Your task to perform on an android device: open app "Adobe Acrobat Reader" (install if not already installed) Image 0: 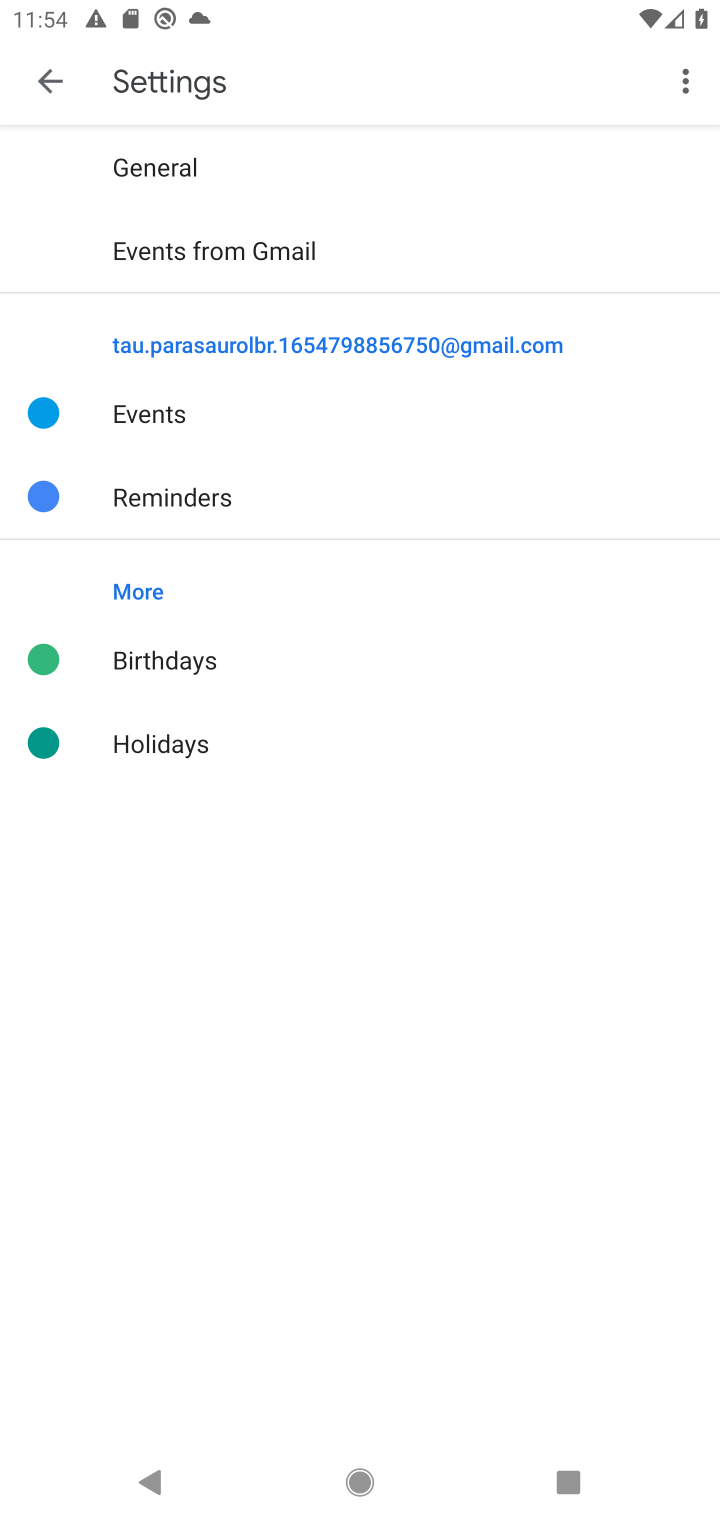
Step 0: press home button
Your task to perform on an android device: open app "Adobe Acrobat Reader" (install if not already installed) Image 1: 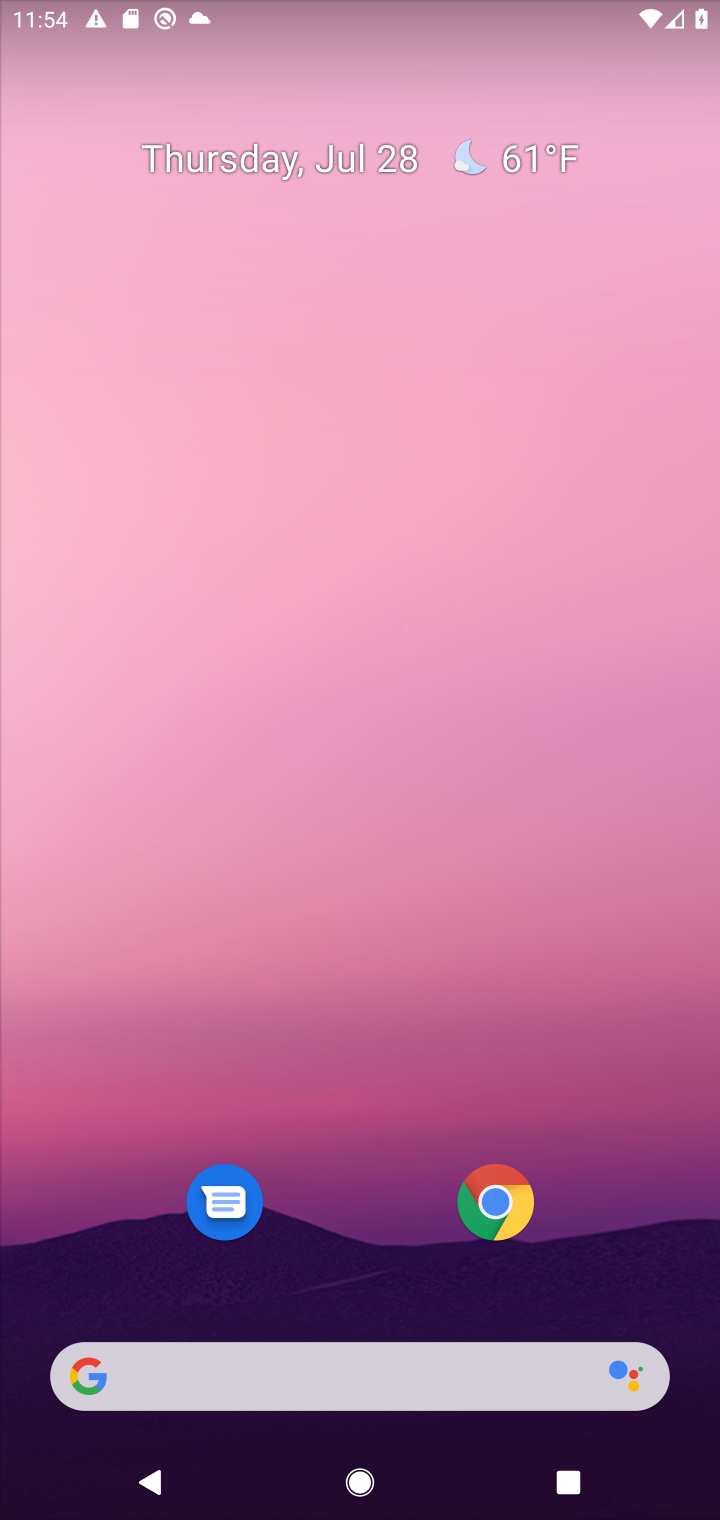
Step 1: drag from (303, 1321) to (333, 122)
Your task to perform on an android device: open app "Adobe Acrobat Reader" (install if not already installed) Image 2: 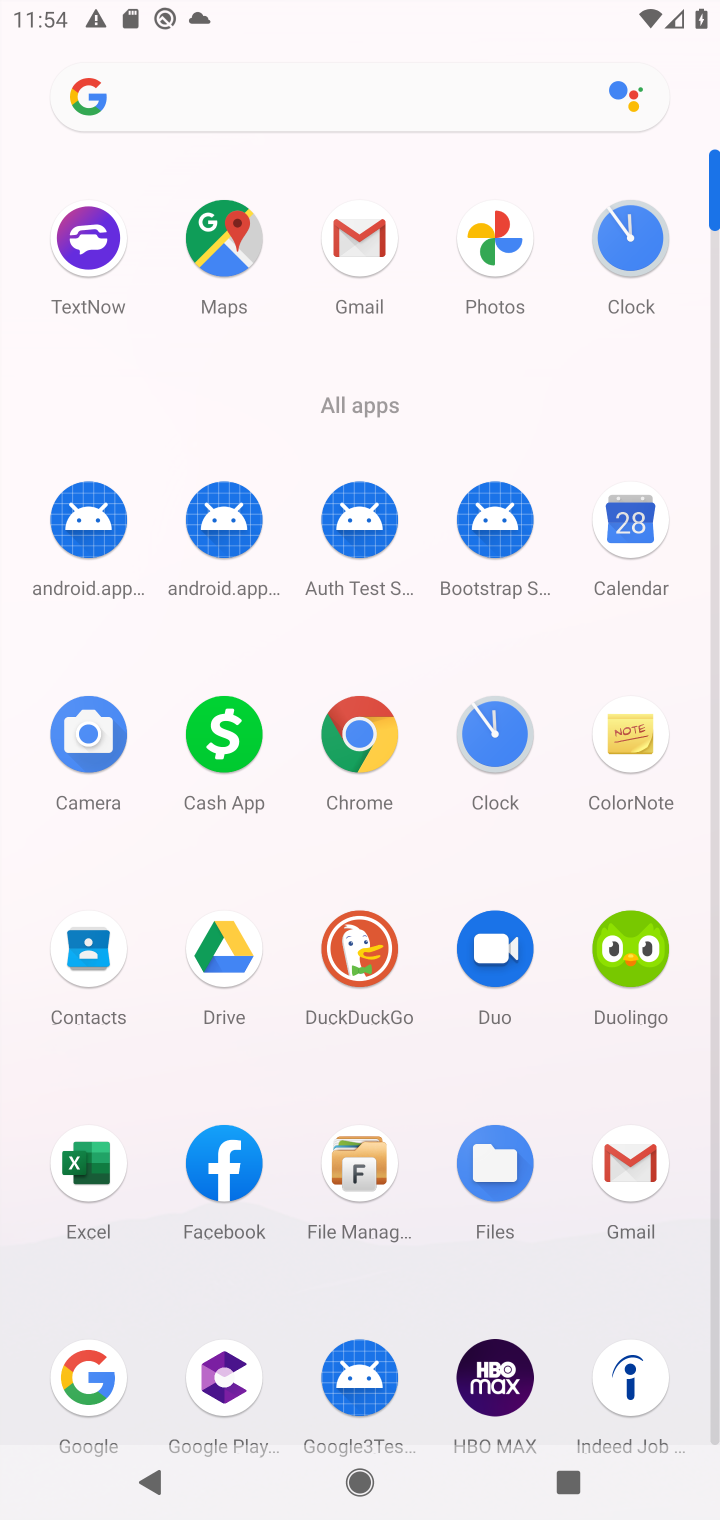
Step 2: click (714, 1434)
Your task to perform on an android device: open app "Adobe Acrobat Reader" (install if not already installed) Image 3: 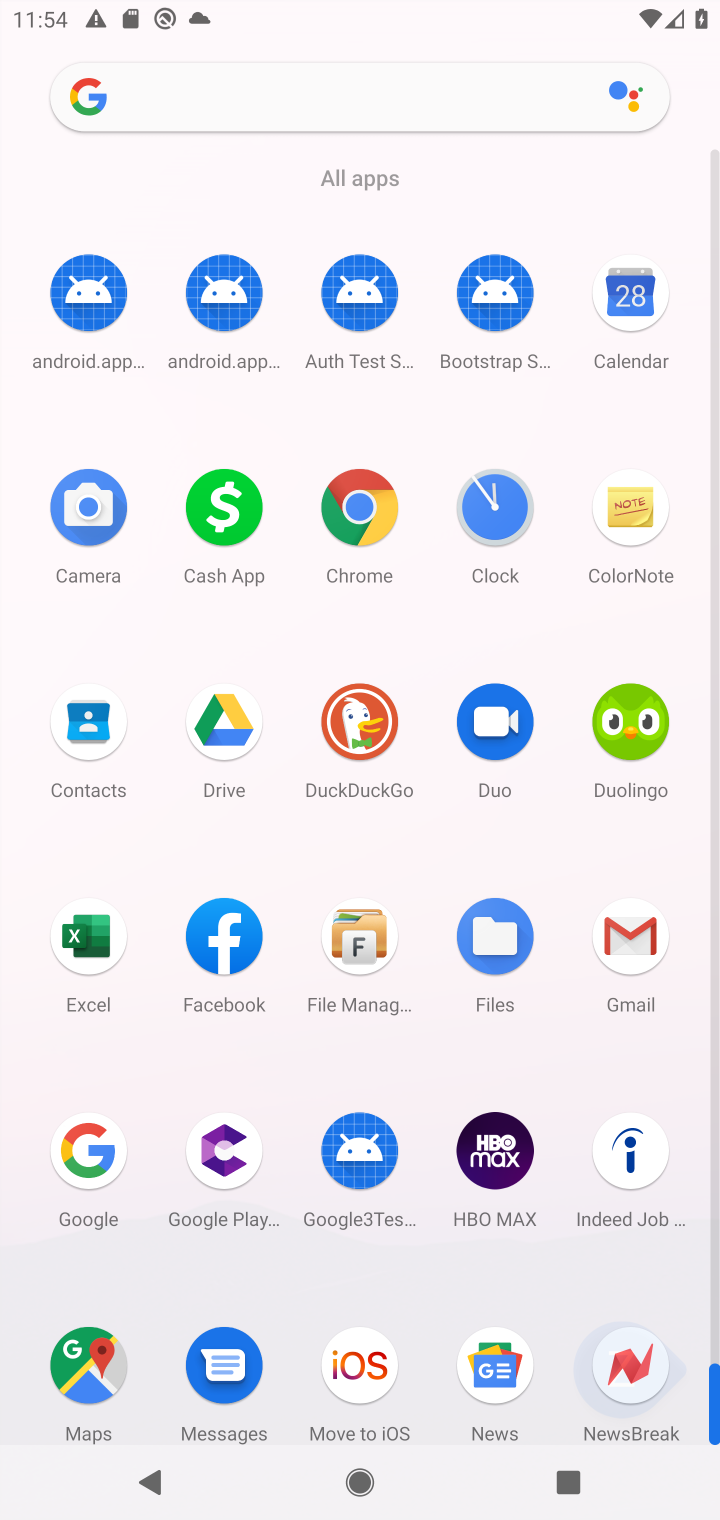
Step 3: click (714, 1434)
Your task to perform on an android device: open app "Adobe Acrobat Reader" (install if not already installed) Image 4: 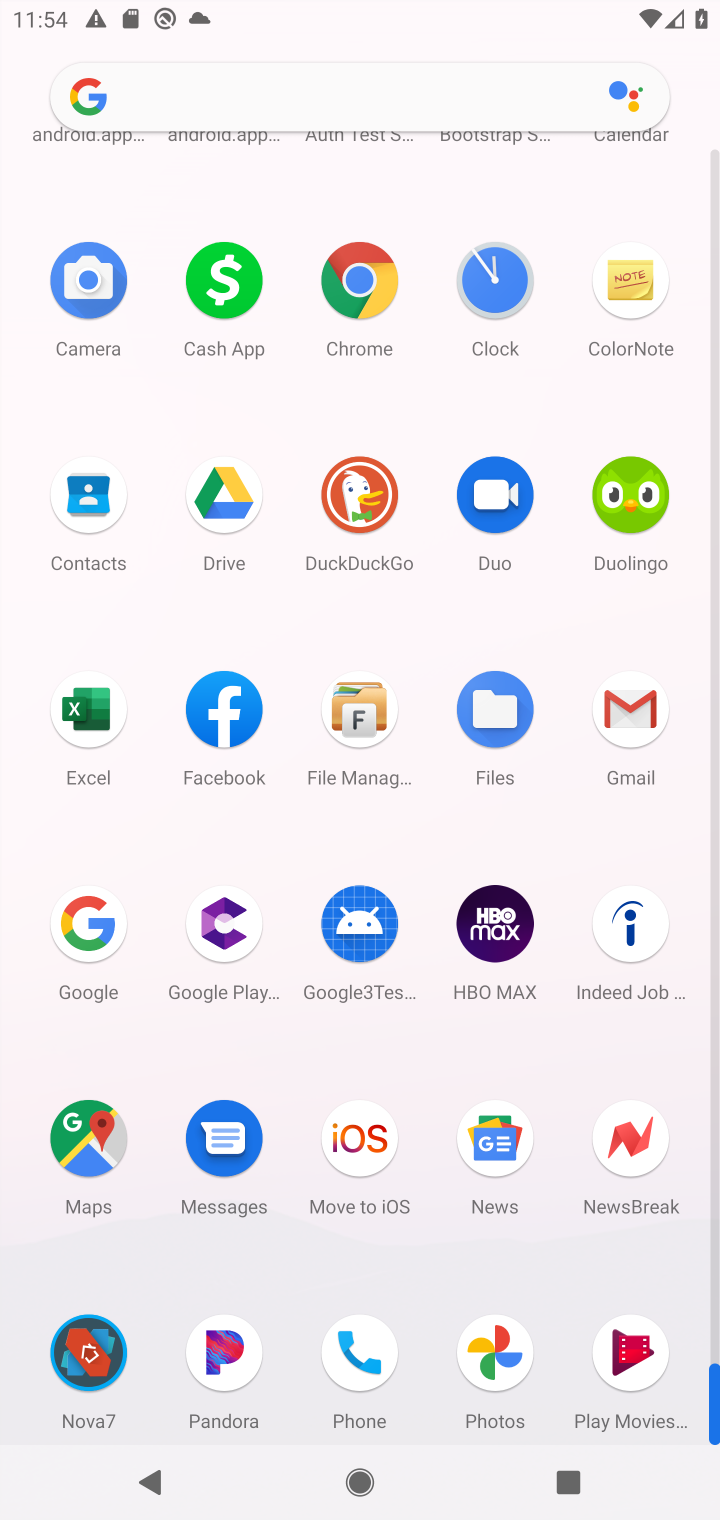
Step 4: click (232, 105)
Your task to perform on an android device: open app "Adobe Acrobat Reader" (install if not already installed) Image 5: 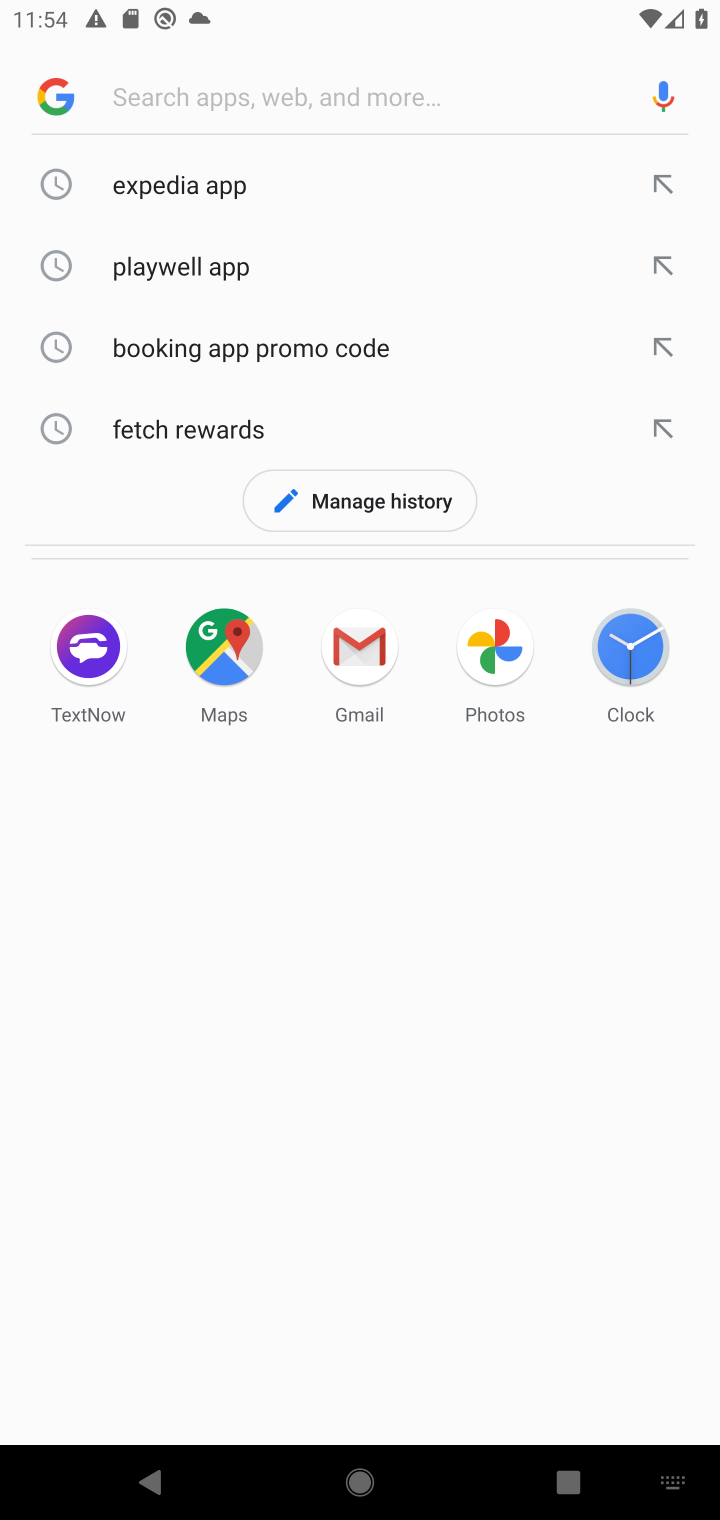
Step 5: type "adobe"
Your task to perform on an android device: open app "Adobe Acrobat Reader" (install if not already installed) Image 6: 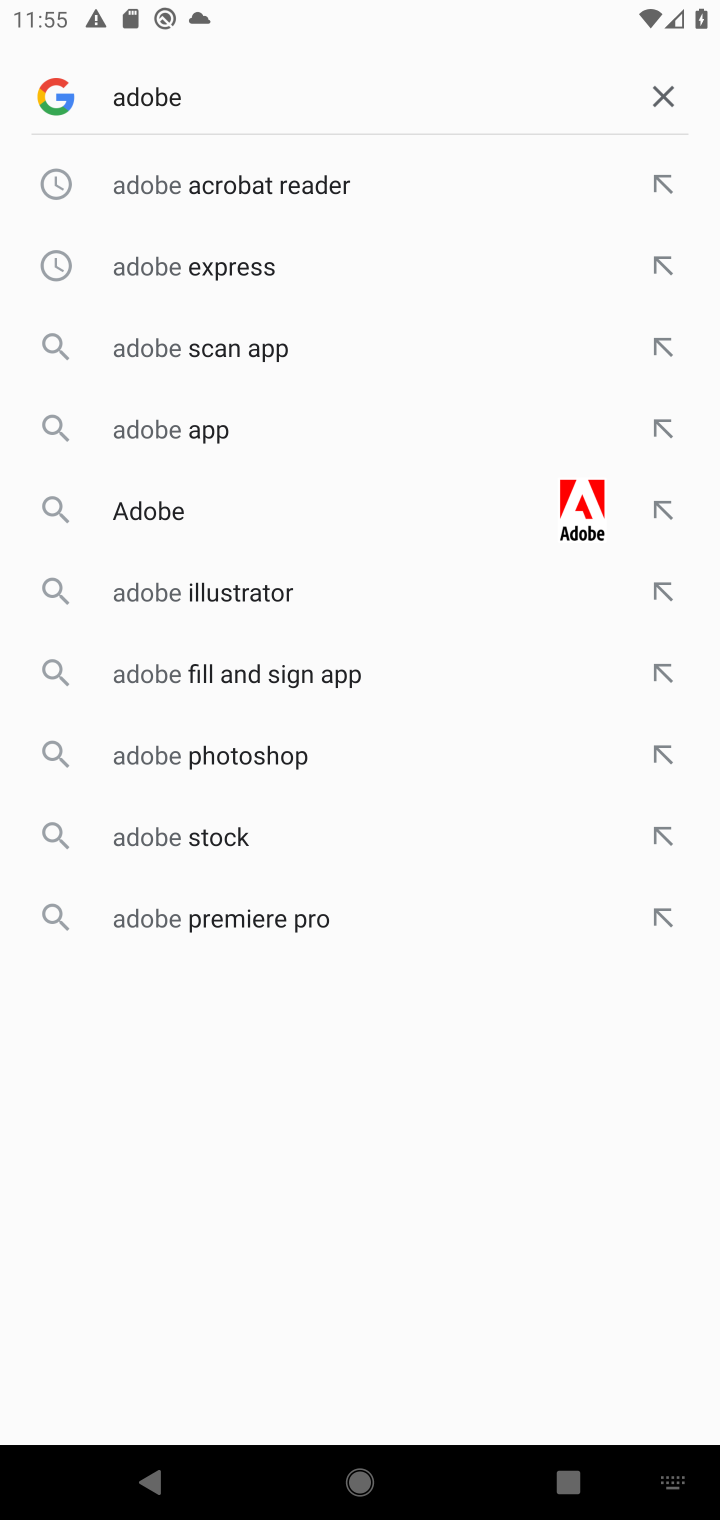
Step 6: click (314, 195)
Your task to perform on an android device: open app "Adobe Acrobat Reader" (install if not already installed) Image 7: 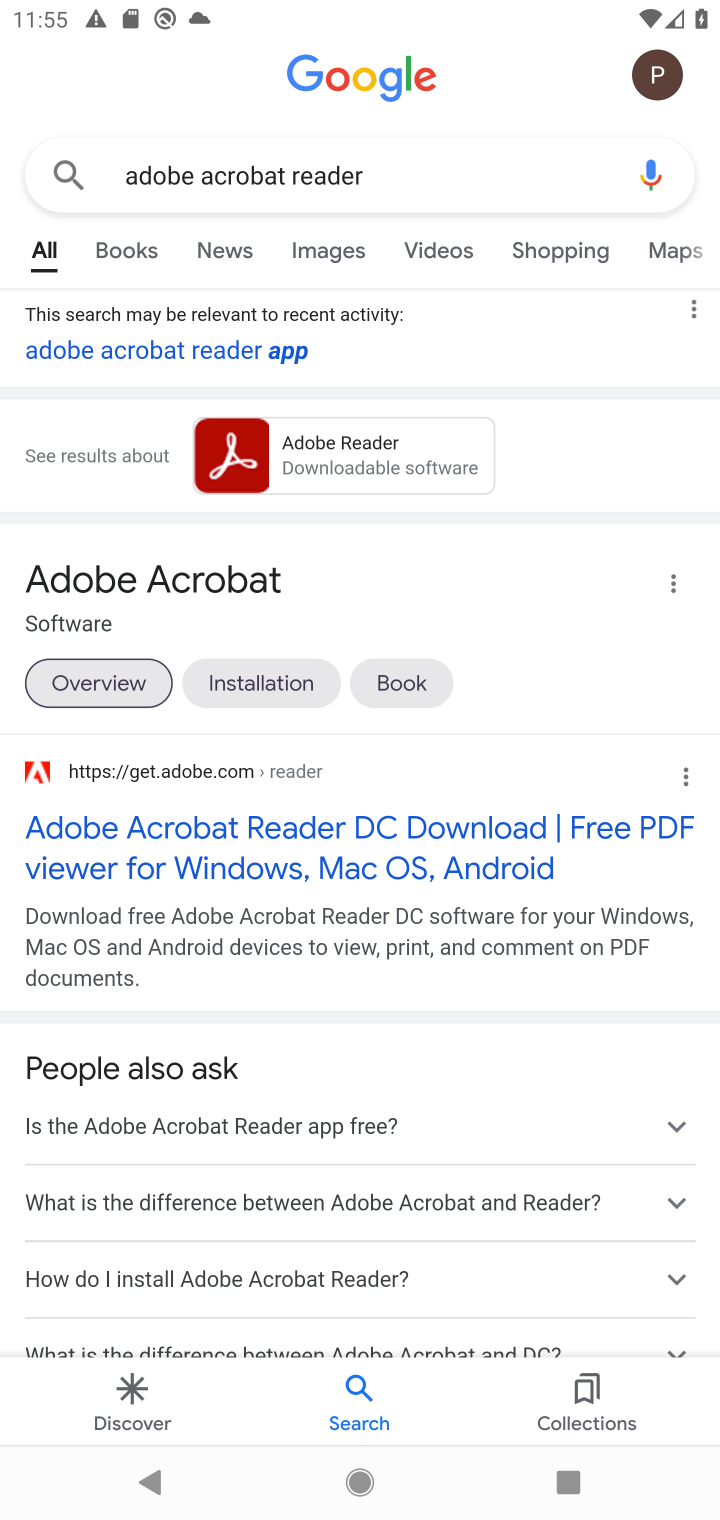
Step 7: drag from (459, 1070) to (391, 238)
Your task to perform on an android device: open app "Adobe Acrobat Reader" (install if not already installed) Image 8: 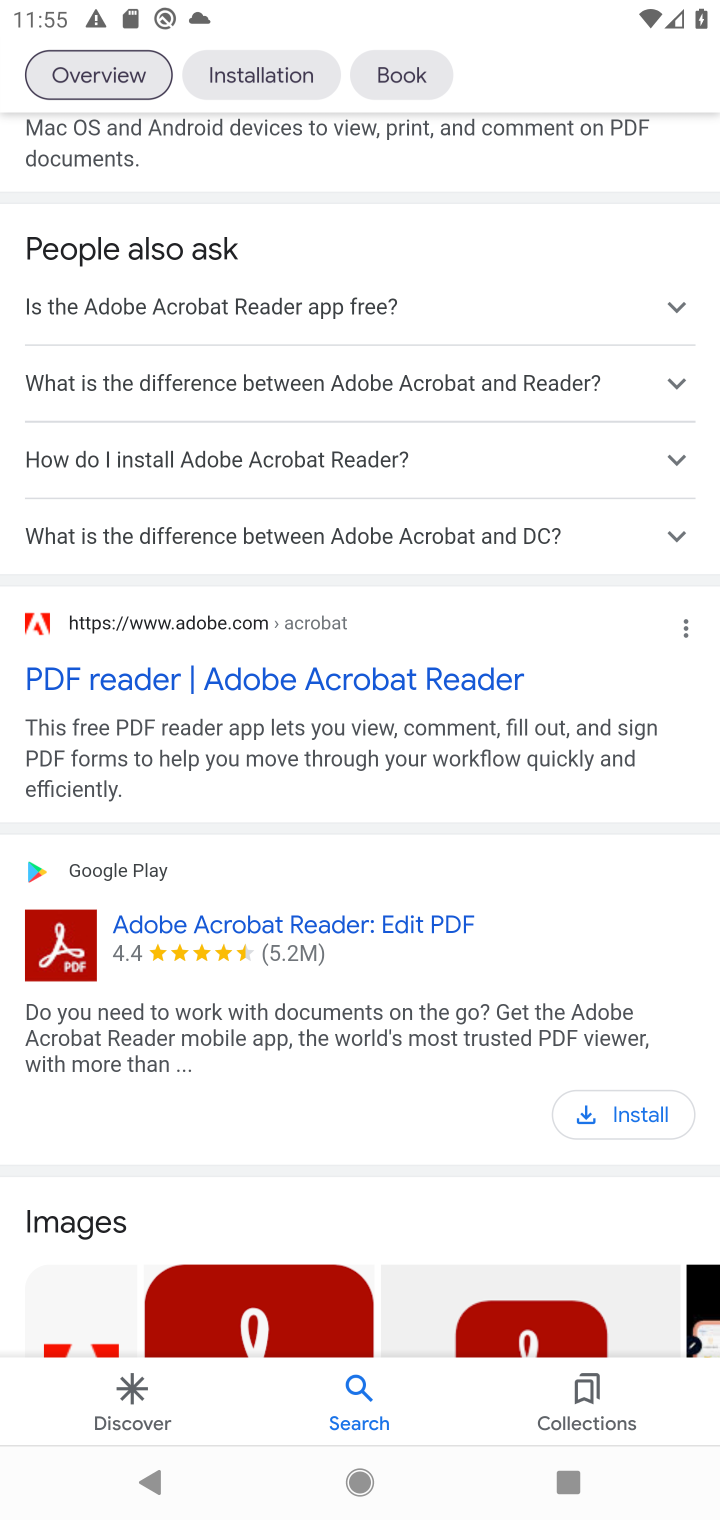
Step 8: click (622, 1117)
Your task to perform on an android device: open app "Adobe Acrobat Reader" (install if not already installed) Image 9: 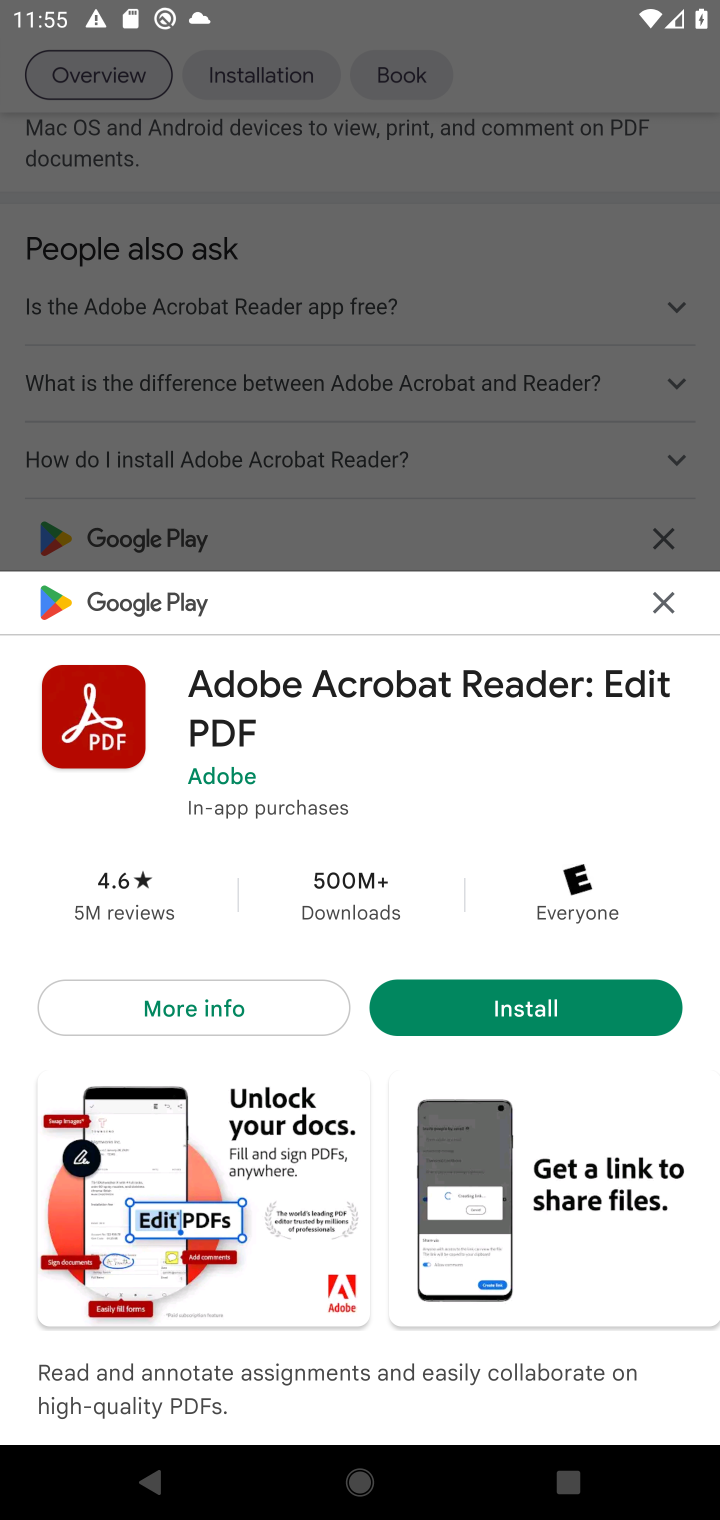
Step 9: click (571, 997)
Your task to perform on an android device: open app "Adobe Acrobat Reader" (install if not already installed) Image 10: 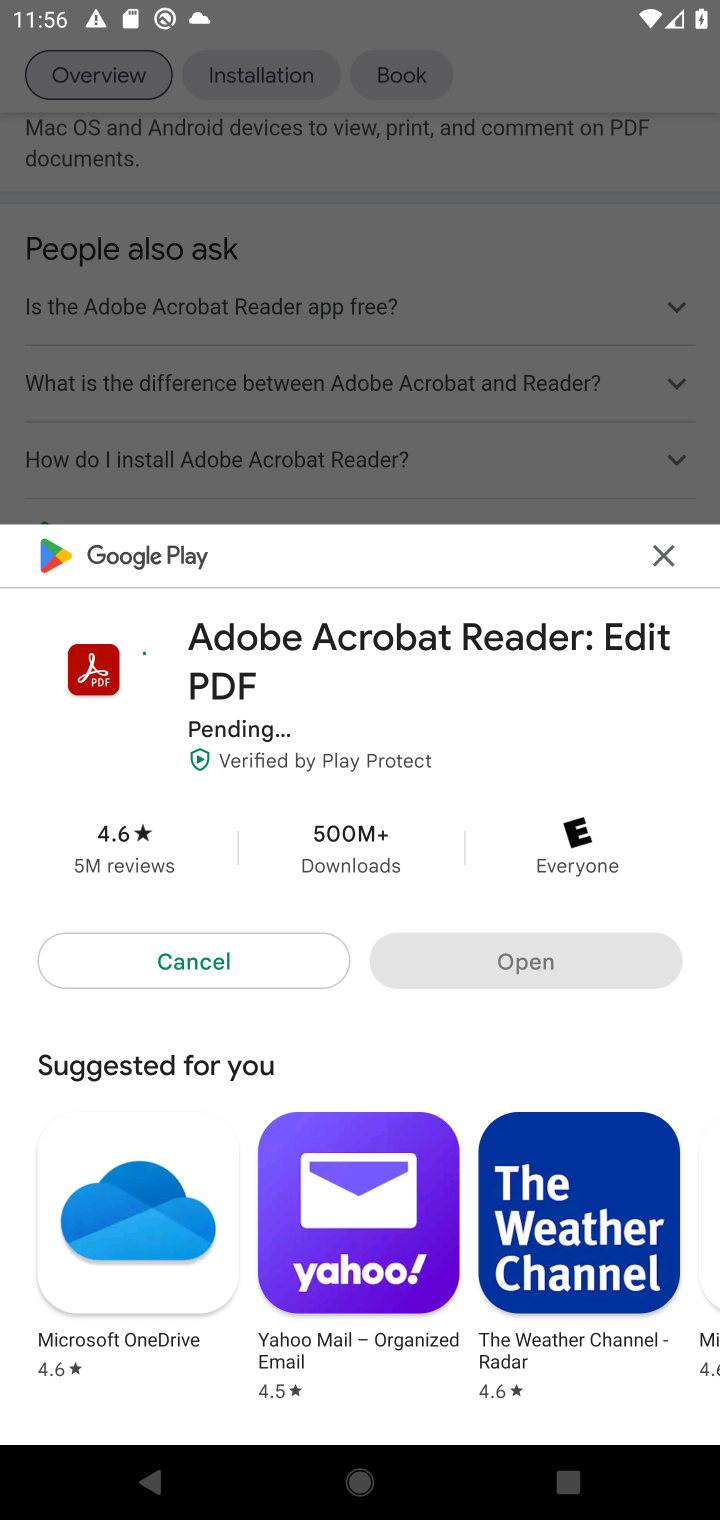
Step 10: task complete